Your task to perform on an android device: Go to Maps Image 0: 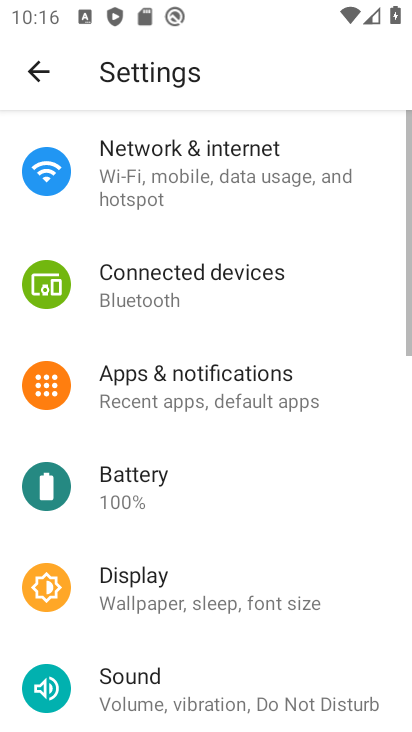
Step 0: press home button
Your task to perform on an android device: Go to Maps Image 1: 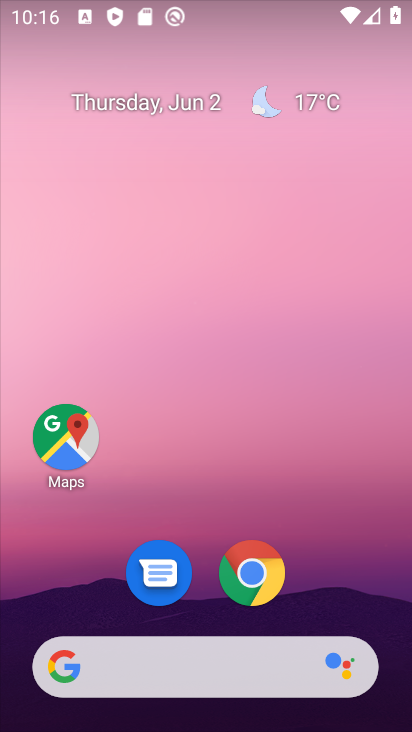
Step 1: drag from (365, 566) to (265, 4)
Your task to perform on an android device: Go to Maps Image 2: 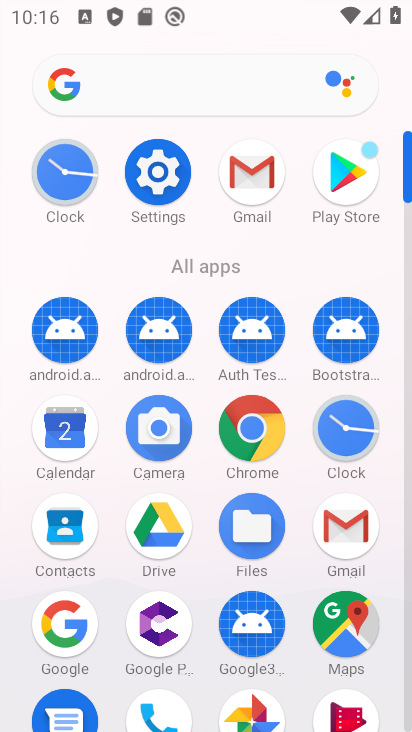
Step 2: click (350, 633)
Your task to perform on an android device: Go to Maps Image 3: 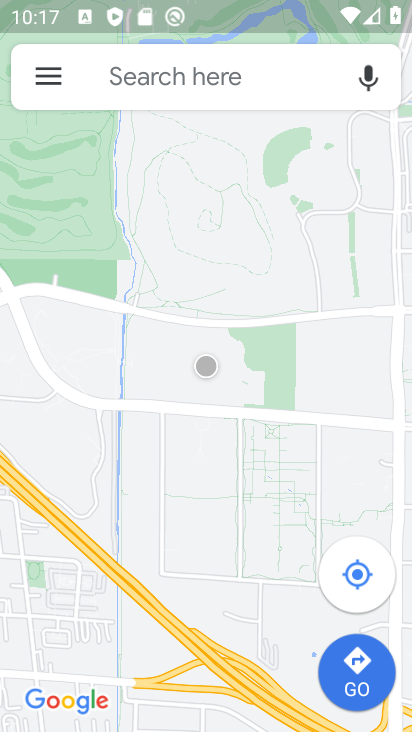
Step 3: task complete